Your task to perform on an android device: set an alarm Image 0: 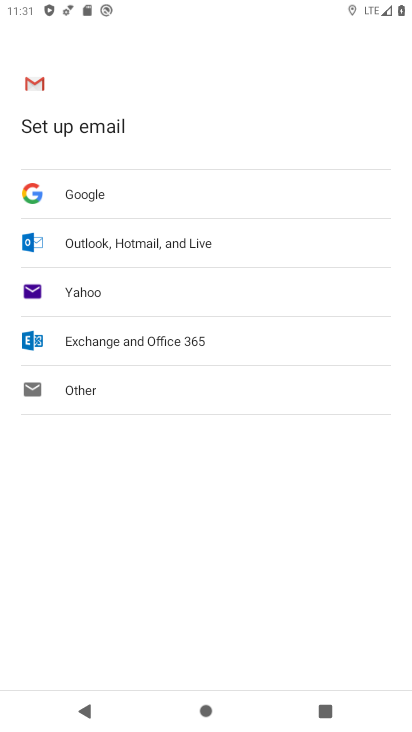
Step 0: press home button
Your task to perform on an android device: set an alarm Image 1: 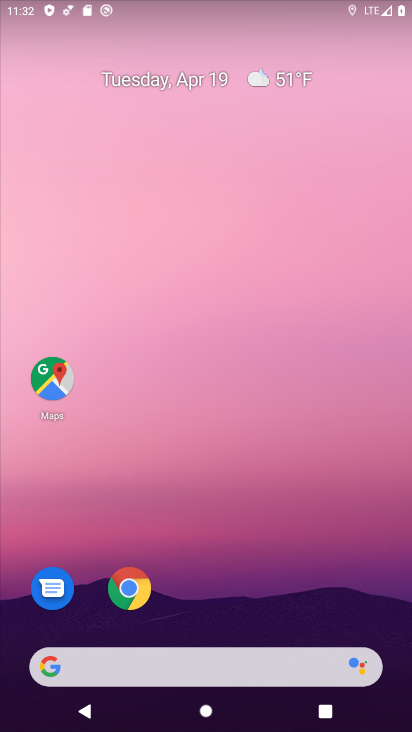
Step 1: drag from (205, 610) to (245, 13)
Your task to perform on an android device: set an alarm Image 2: 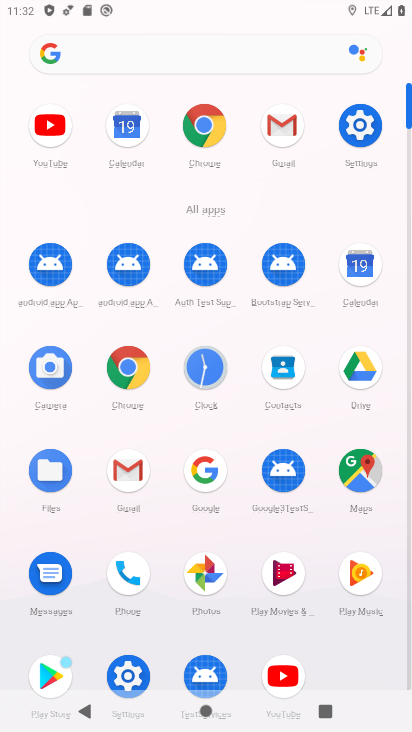
Step 2: click (203, 362)
Your task to perform on an android device: set an alarm Image 3: 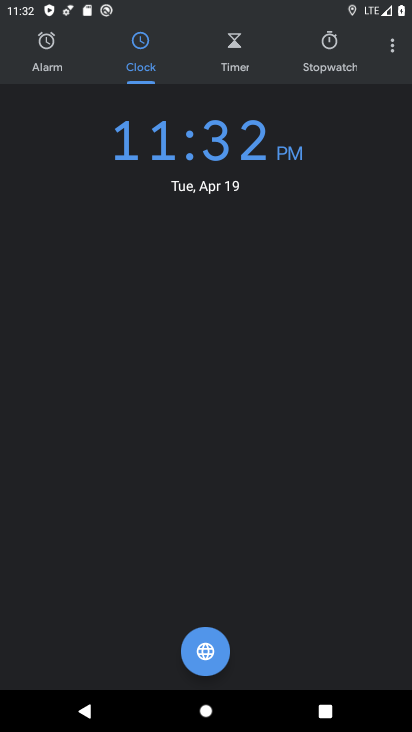
Step 3: click (45, 41)
Your task to perform on an android device: set an alarm Image 4: 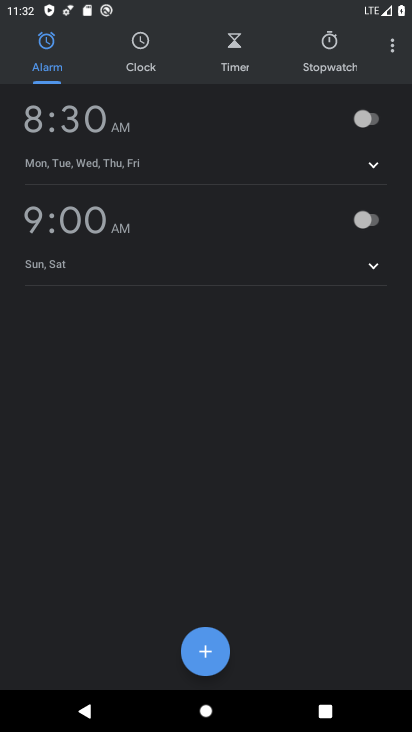
Step 4: task complete